Your task to perform on an android device: find photos in the google photos app Image 0: 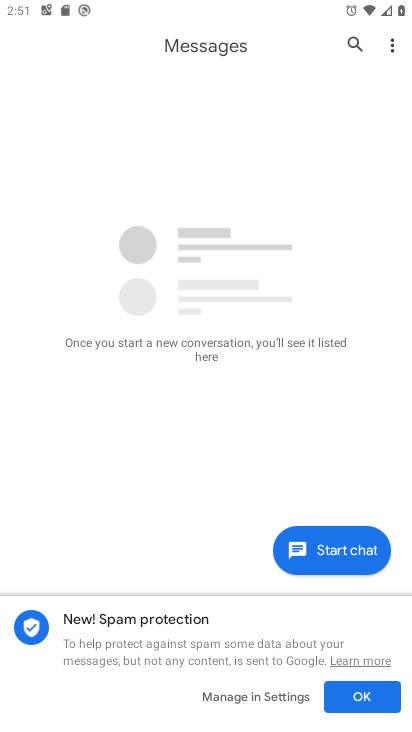
Step 0: press home button
Your task to perform on an android device: find photos in the google photos app Image 1: 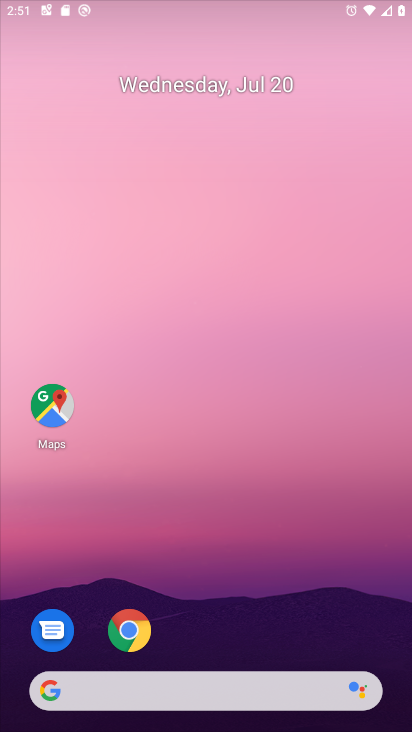
Step 1: drag from (215, 671) to (254, 177)
Your task to perform on an android device: find photos in the google photos app Image 2: 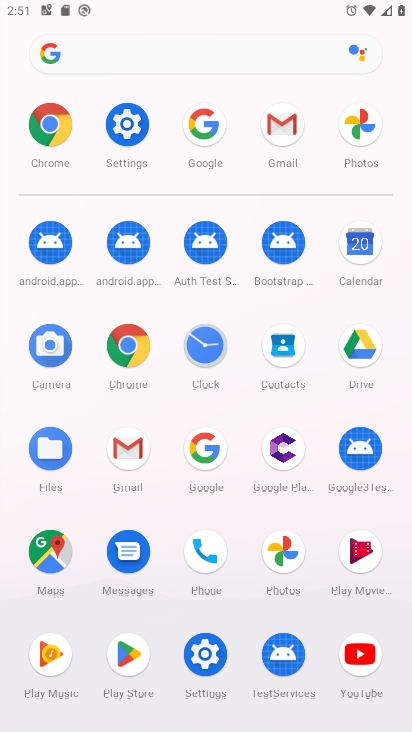
Step 2: click (288, 555)
Your task to perform on an android device: find photos in the google photos app Image 3: 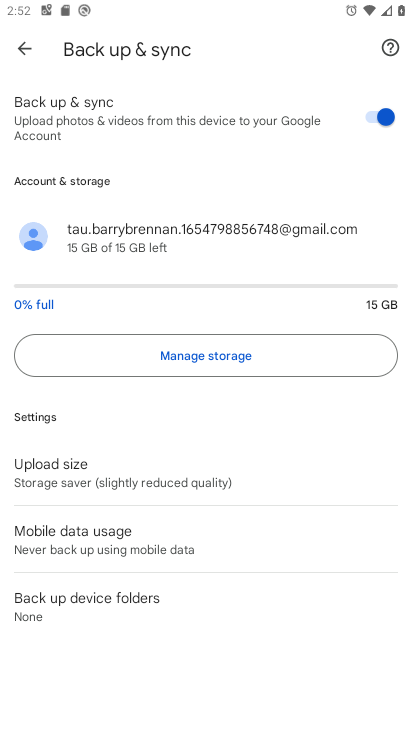
Step 3: click (20, 48)
Your task to perform on an android device: find photos in the google photos app Image 4: 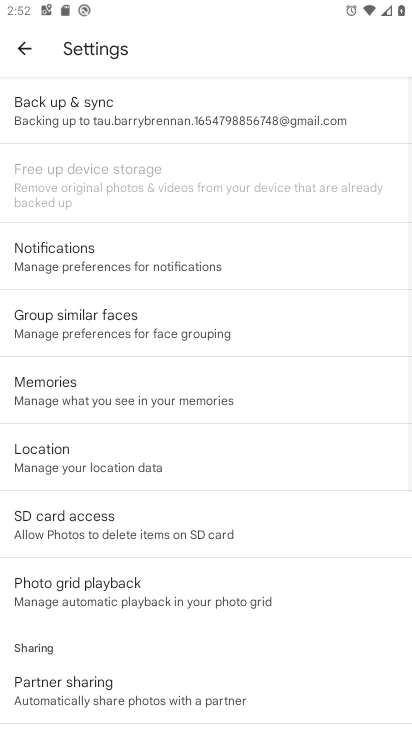
Step 4: click (19, 47)
Your task to perform on an android device: find photos in the google photos app Image 5: 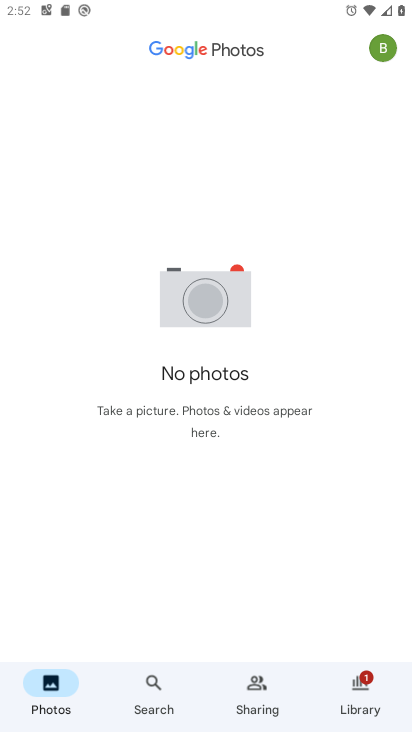
Step 5: task complete